Your task to perform on an android device: manage bookmarks in the chrome app Image 0: 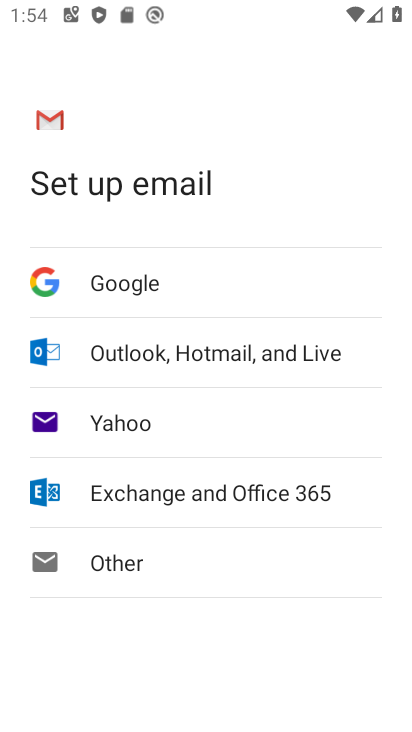
Step 0: press home button
Your task to perform on an android device: manage bookmarks in the chrome app Image 1: 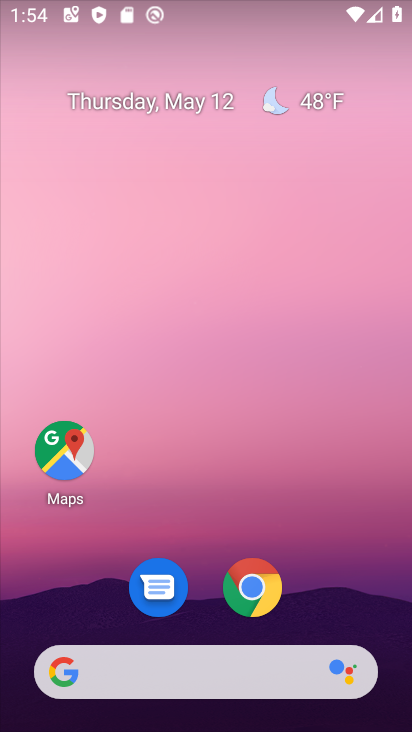
Step 1: drag from (213, 621) to (294, 183)
Your task to perform on an android device: manage bookmarks in the chrome app Image 2: 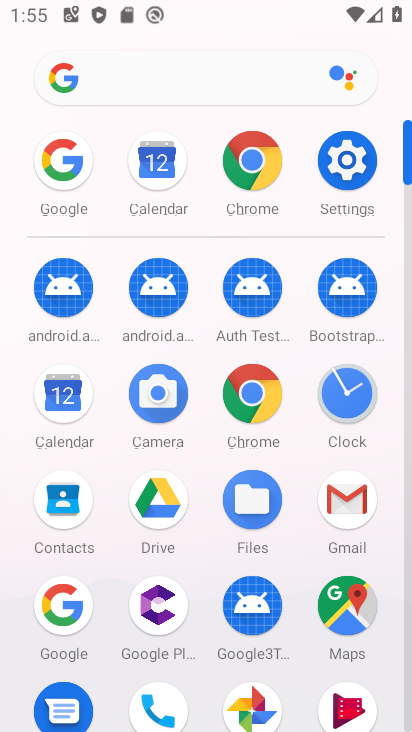
Step 2: click (253, 181)
Your task to perform on an android device: manage bookmarks in the chrome app Image 3: 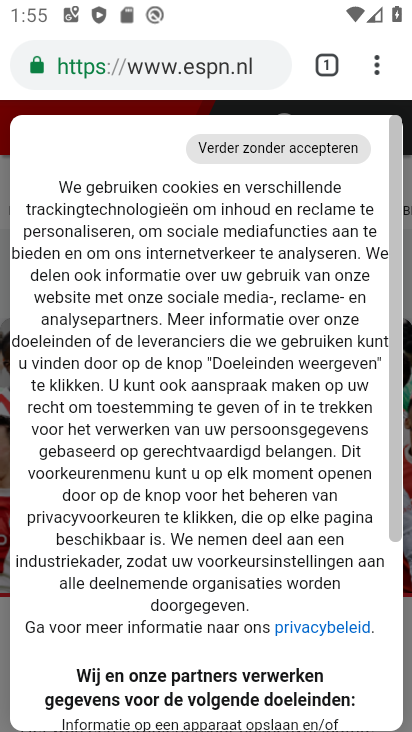
Step 3: click (387, 73)
Your task to perform on an android device: manage bookmarks in the chrome app Image 4: 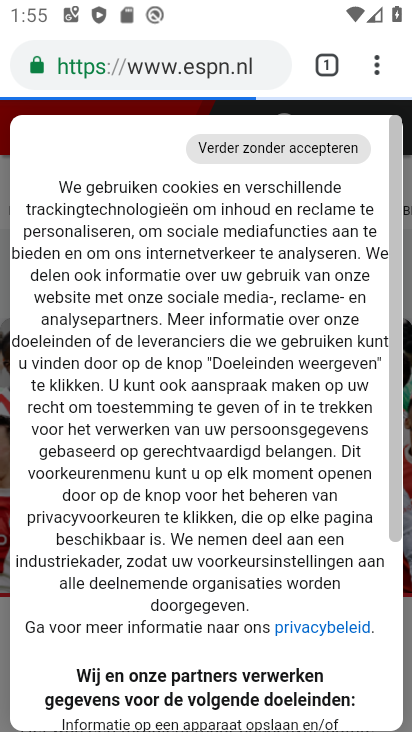
Step 4: click (371, 71)
Your task to perform on an android device: manage bookmarks in the chrome app Image 5: 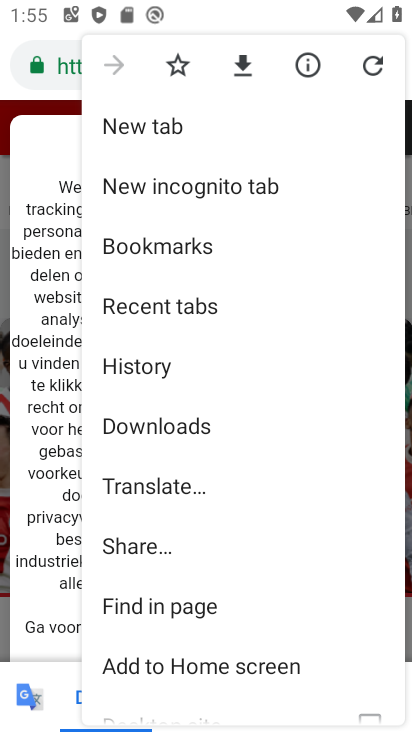
Step 5: click (170, 256)
Your task to perform on an android device: manage bookmarks in the chrome app Image 6: 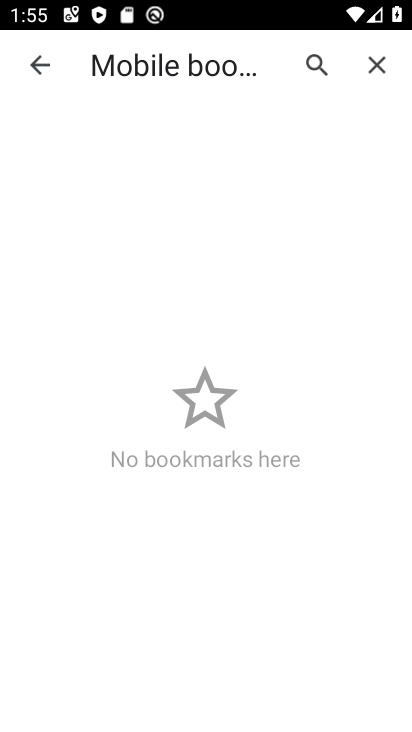
Step 6: task complete